Your task to perform on an android device: toggle pop-ups in chrome Image 0: 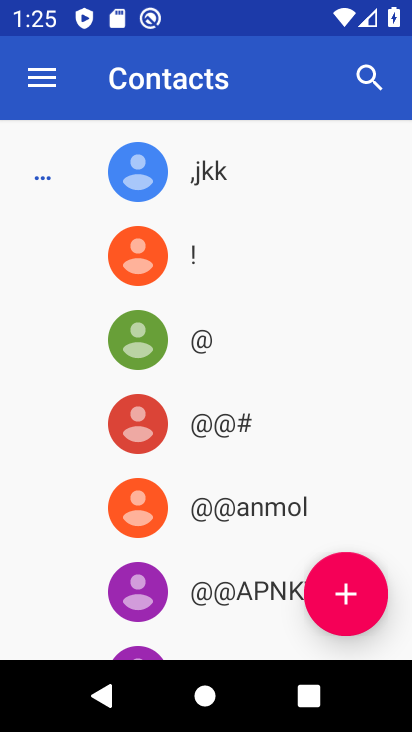
Step 0: press home button
Your task to perform on an android device: toggle pop-ups in chrome Image 1: 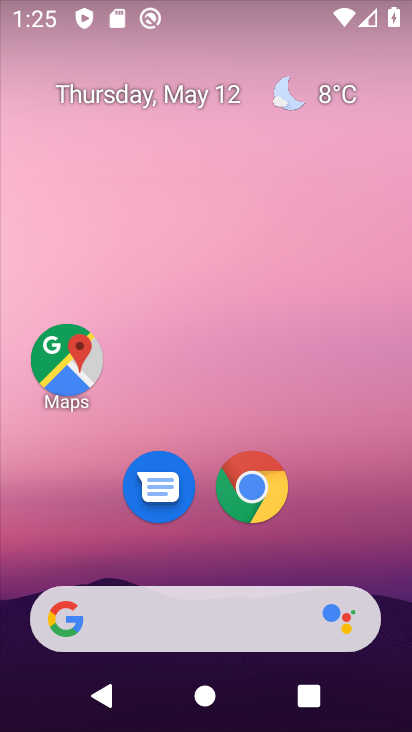
Step 1: click (248, 494)
Your task to perform on an android device: toggle pop-ups in chrome Image 2: 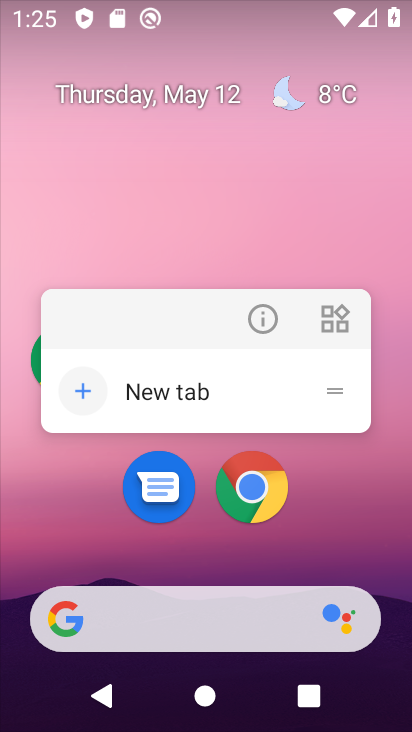
Step 2: click (248, 494)
Your task to perform on an android device: toggle pop-ups in chrome Image 3: 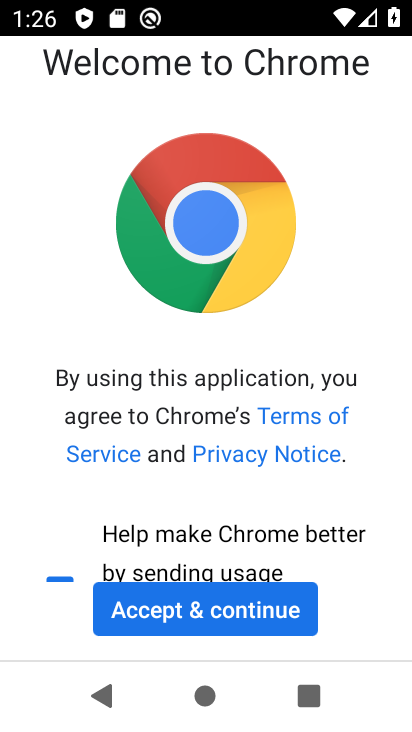
Step 3: click (118, 612)
Your task to perform on an android device: toggle pop-ups in chrome Image 4: 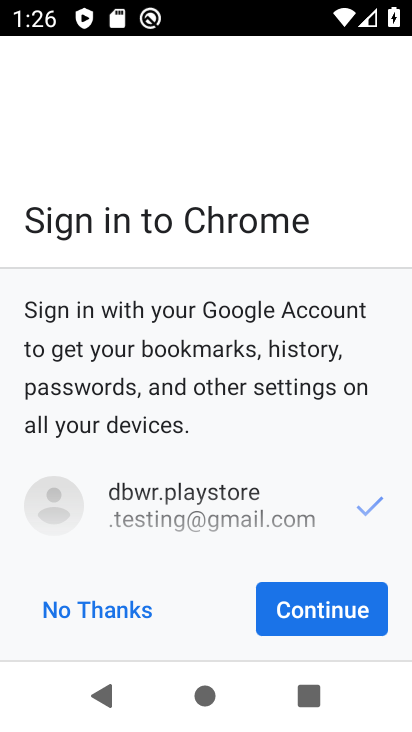
Step 4: click (324, 598)
Your task to perform on an android device: toggle pop-ups in chrome Image 5: 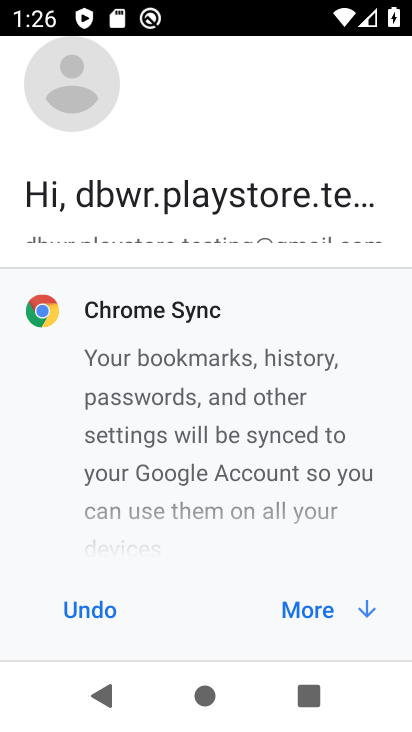
Step 5: click (323, 591)
Your task to perform on an android device: toggle pop-ups in chrome Image 6: 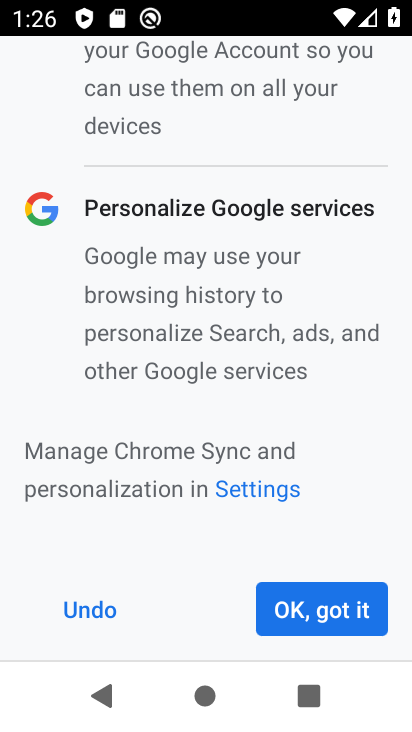
Step 6: click (300, 602)
Your task to perform on an android device: toggle pop-ups in chrome Image 7: 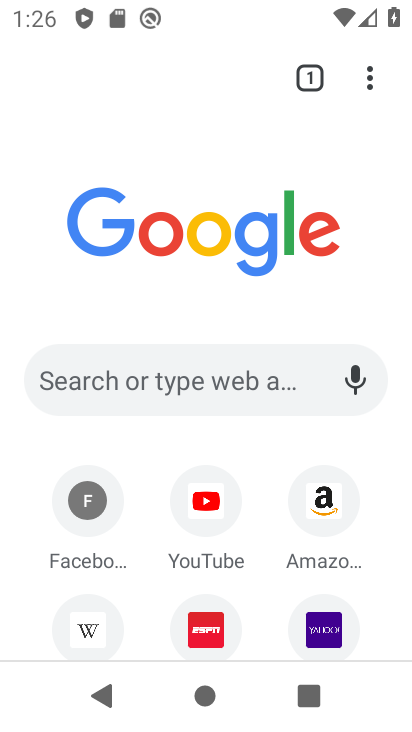
Step 7: click (371, 81)
Your task to perform on an android device: toggle pop-ups in chrome Image 8: 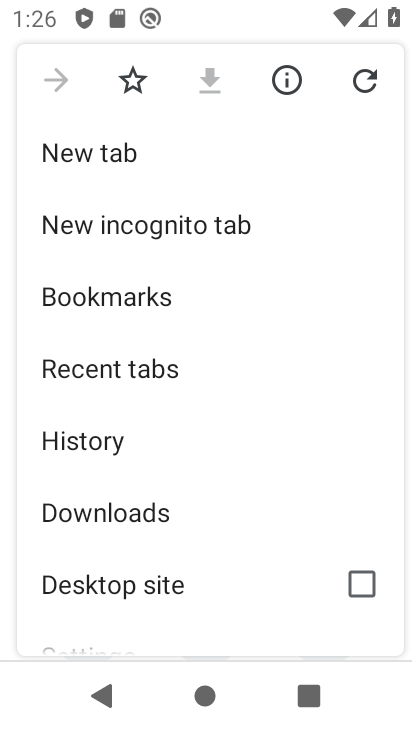
Step 8: drag from (185, 569) to (146, 195)
Your task to perform on an android device: toggle pop-ups in chrome Image 9: 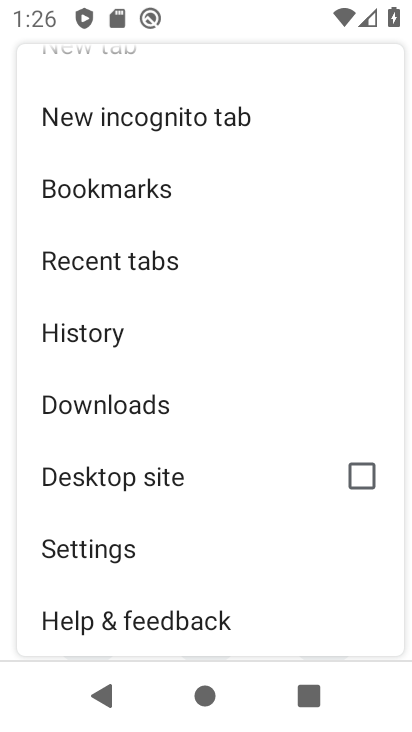
Step 9: click (57, 560)
Your task to perform on an android device: toggle pop-ups in chrome Image 10: 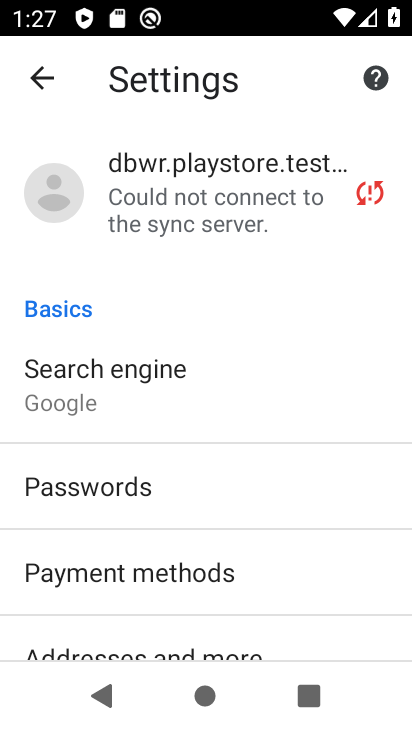
Step 10: drag from (76, 590) to (74, 139)
Your task to perform on an android device: toggle pop-ups in chrome Image 11: 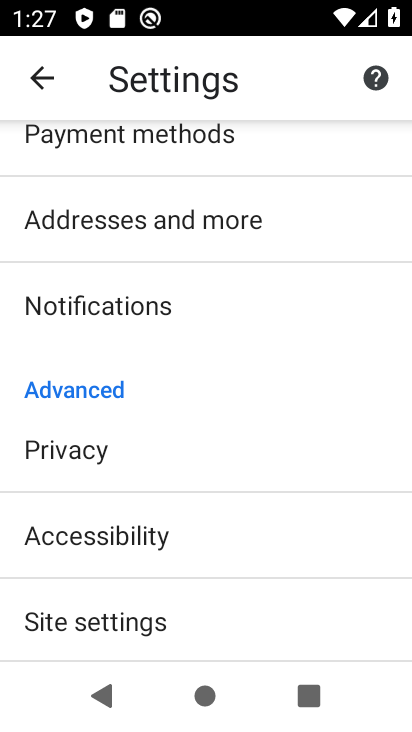
Step 11: drag from (112, 517) to (113, 55)
Your task to perform on an android device: toggle pop-ups in chrome Image 12: 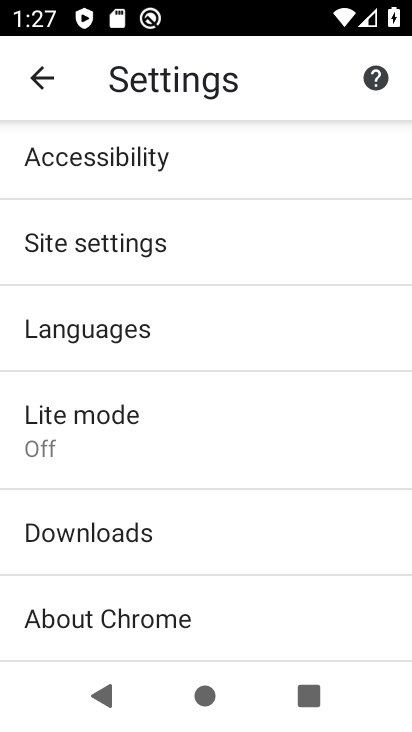
Step 12: click (111, 257)
Your task to perform on an android device: toggle pop-ups in chrome Image 13: 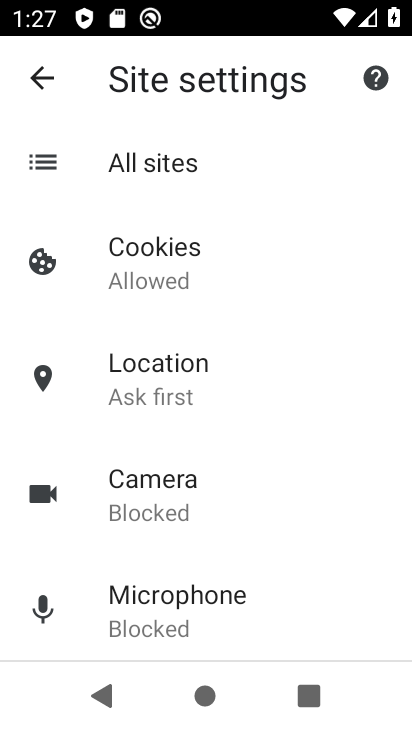
Step 13: drag from (170, 444) to (207, 225)
Your task to perform on an android device: toggle pop-ups in chrome Image 14: 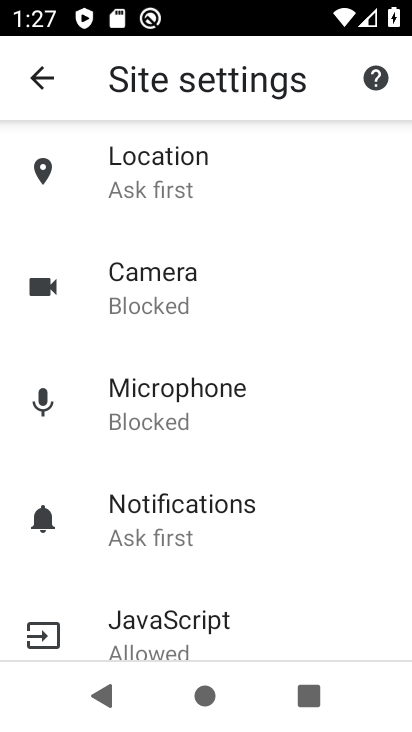
Step 14: drag from (204, 621) to (192, 245)
Your task to perform on an android device: toggle pop-ups in chrome Image 15: 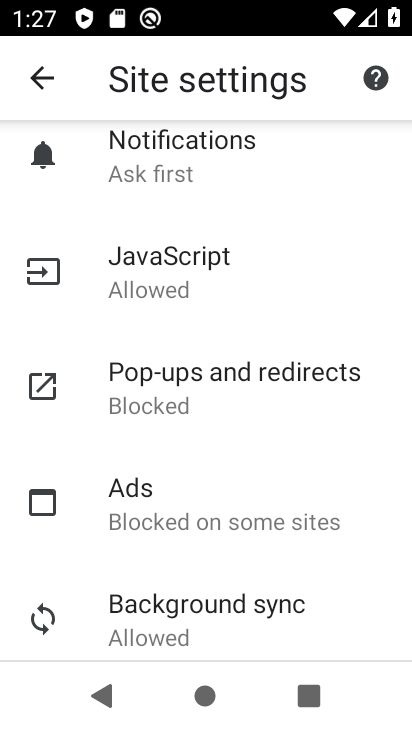
Step 15: click (197, 360)
Your task to perform on an android device: toggle pop-ups in chrome Image 16: 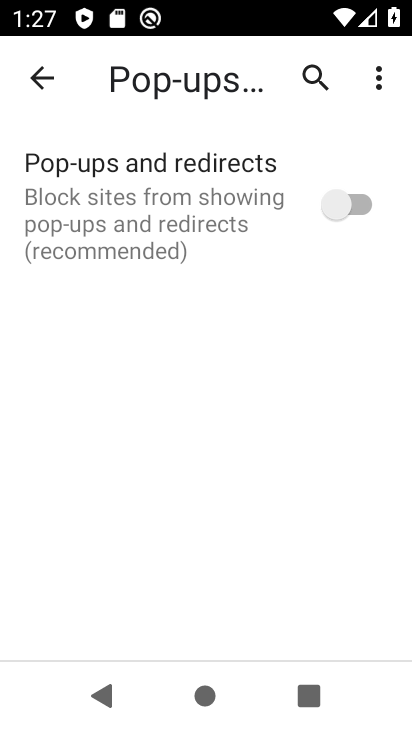
Step 16: click (365, 214)
Your task to perform on an android device: toggle pop-ups in chrome Image 17: 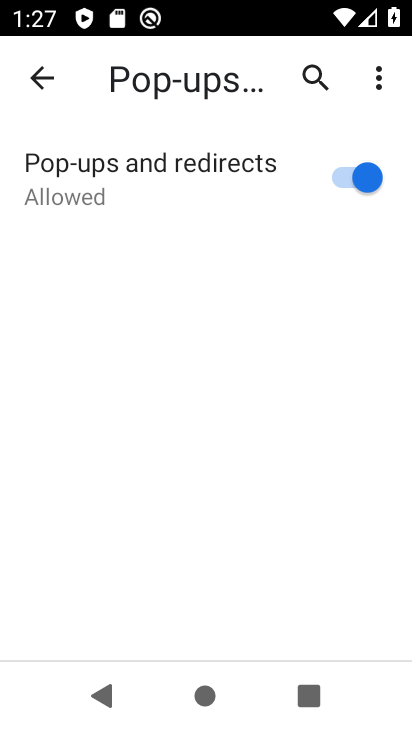
Step 17: task complete